Your task to perform on an android device: Set the phone to "Do not disturb". Image 0: 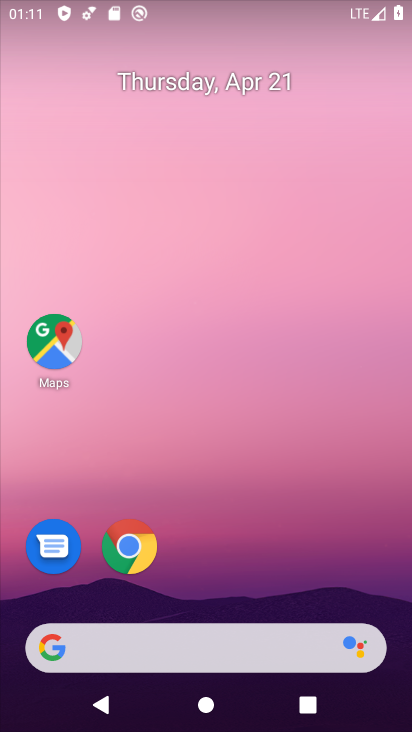
Step 0: drag from (215, 533) to (202, 91)
Your task to perform on an android device: Set the phone to "Do not disturb". Image 1: 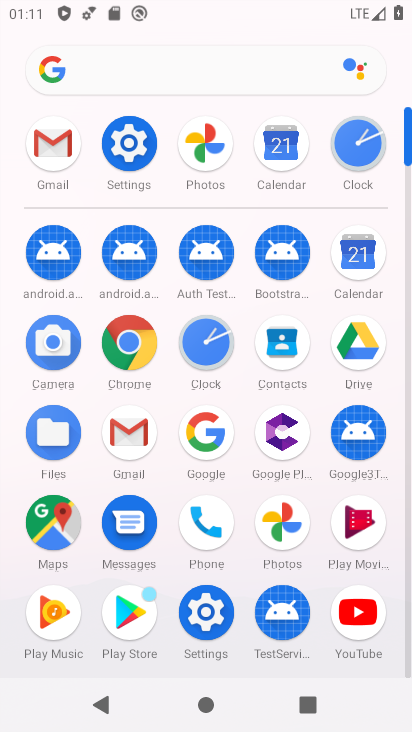
Step 1: click (132, 159)
Your task to perform on an android device: Set the phone to "Do not disturb". Image 2: 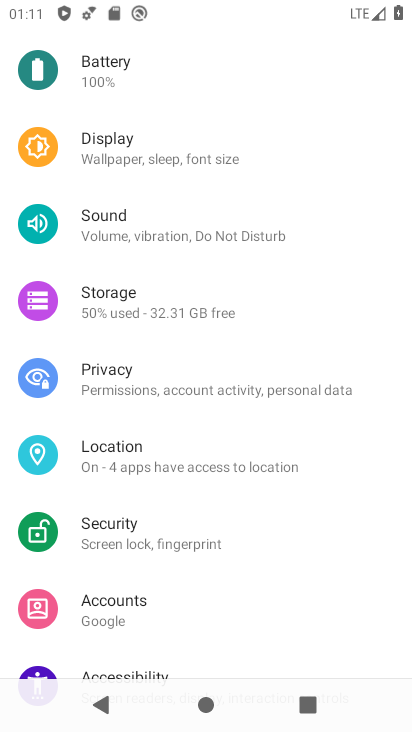
Step 2: click (211, 238)
Your task to perform on an android device: Set the phone to "Do not disturb". Image 3: 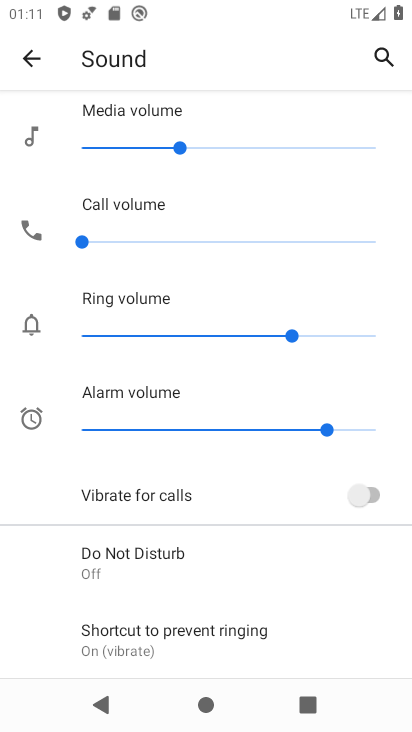
Step 3: click (183, 570)
Your task to perform on an android device: Set the phone to "Do not disturb". Image 4: 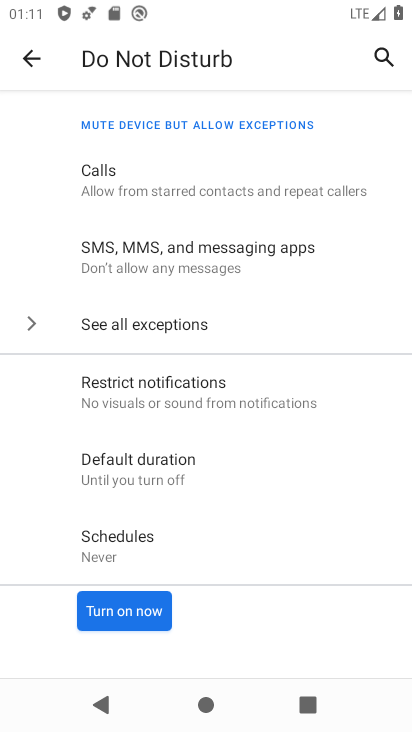
Step 4: click (144, 612)
Your task to perform on an android device: Set the phone to "Do not disturb". Image 5: 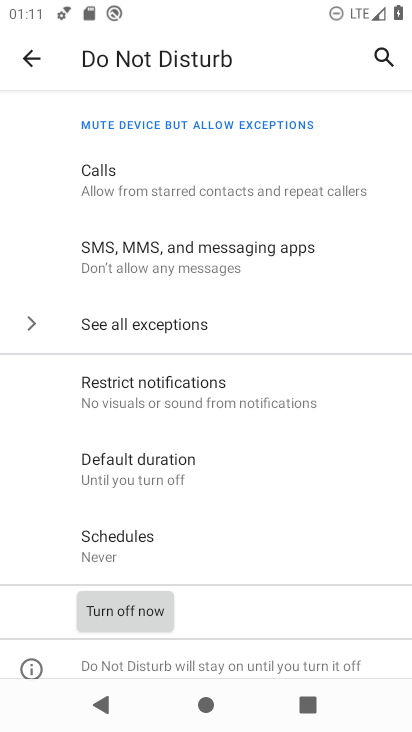
Step 5: task complete